Your task to perform on an android device: open a new tab in the chrome app Image 0: 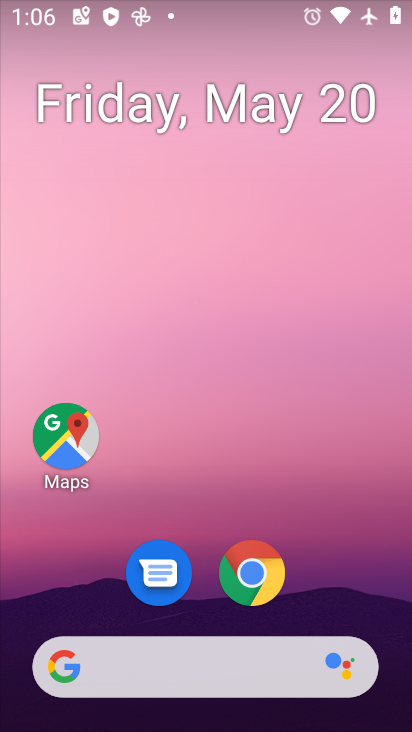
Step 0: click (254, 573)
Your task to perform on an android device: open a new tab in the chrome app Image 1: 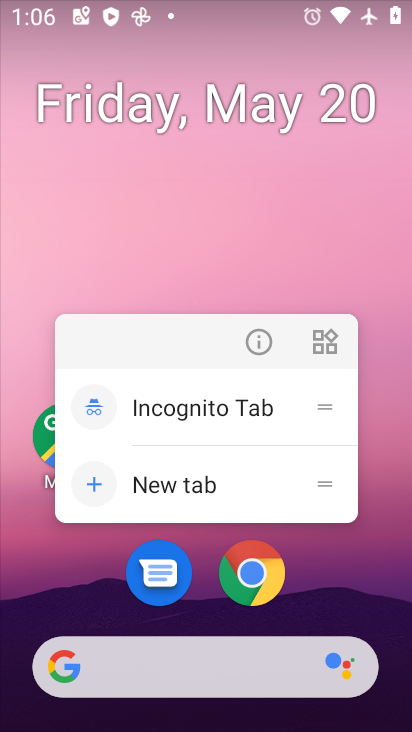
Step 1: click (254, 573)
Your task to perform on an android device: open a new tab in the chrome app Image 2: 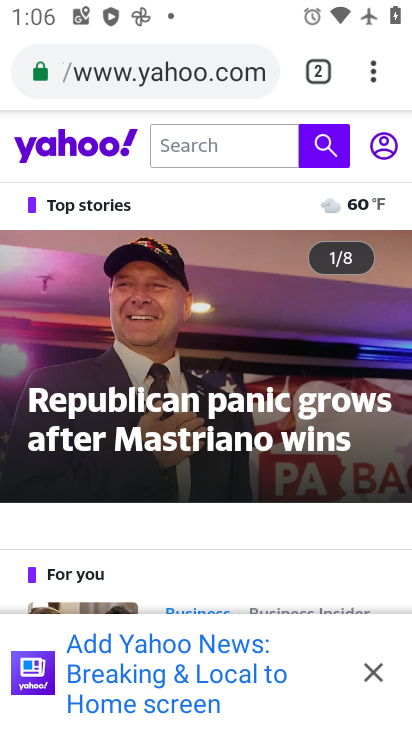
Step 2: click (321, 72)
Your task to perform on an android device: open a new tab in the chrome app Image 3: 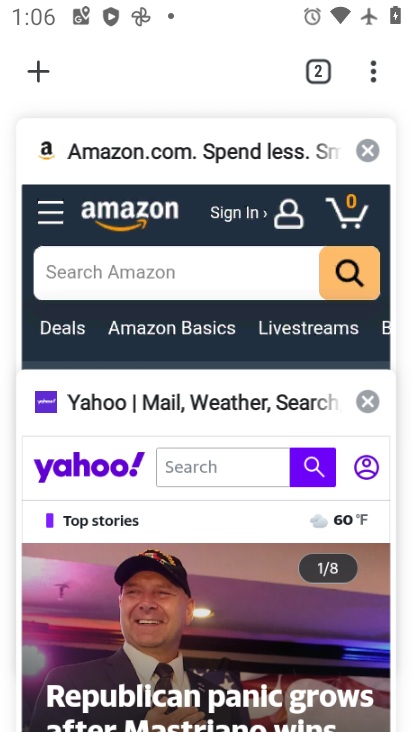
Step 3: click (38, 73)
Your task to perform on an android device: open a new tab in the chrome app Image 4: 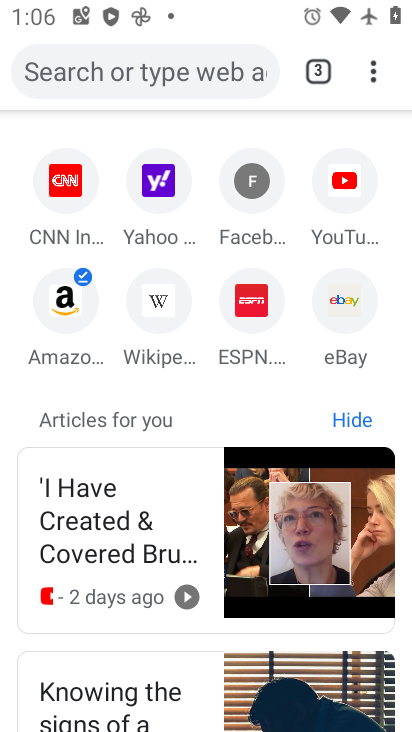
Step 4: task complete